Your task to perform on an android device: Open Google Maps and go to "Timeline" Image 0: 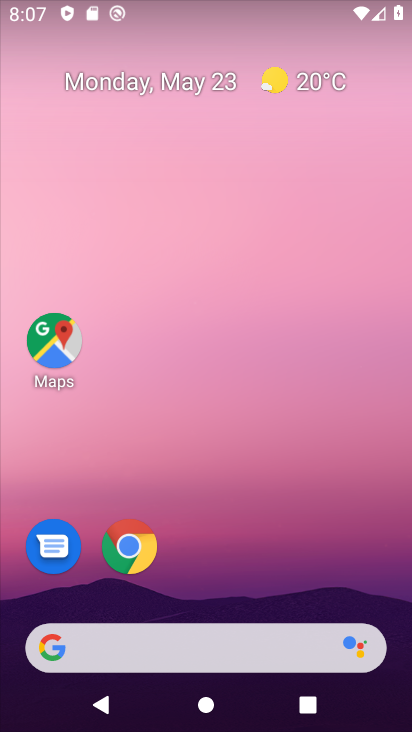
Step 0: drag from (270, 529) to (221, 0)
Your task to perform on an android device: Open Google Maps and go to "Timeline" Image 1: 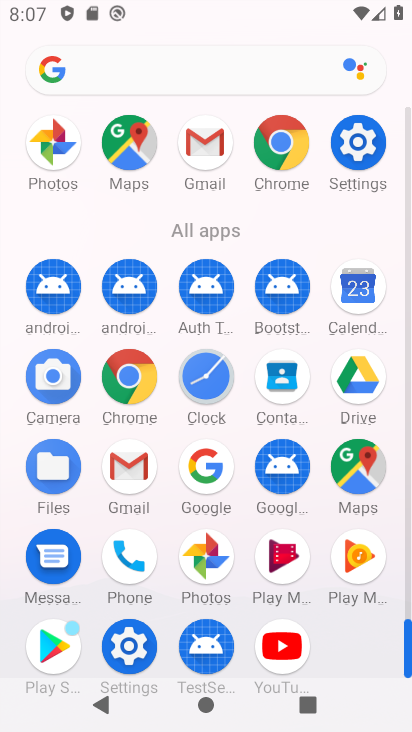
Step 1: drag from (11, 529) to (16, 186)
Your task to perform on an android device: Open Google Maps and go to "Timeline" Image 2: 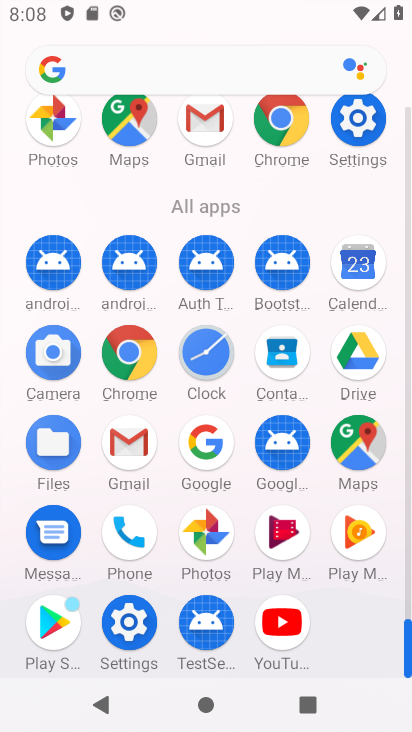
Step 2: click (350, 442)
Your task to perform on an android device: Open Google Maps and go to "Timeline" Image 3: 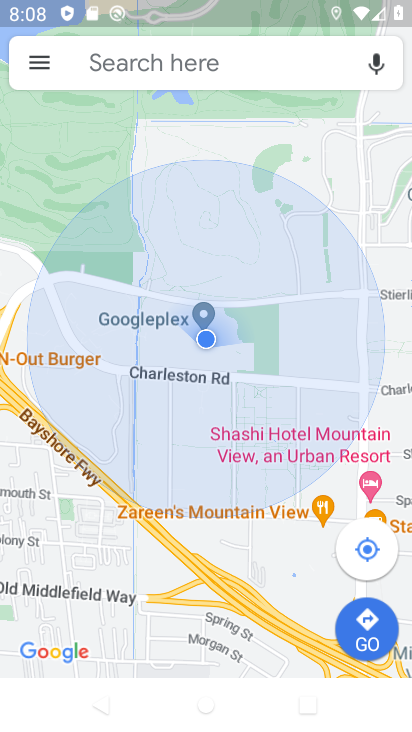
Step 3: click (31, 78)
Your task to perform on an android device: Open Google Maps and go to "Timeline" Image 4: 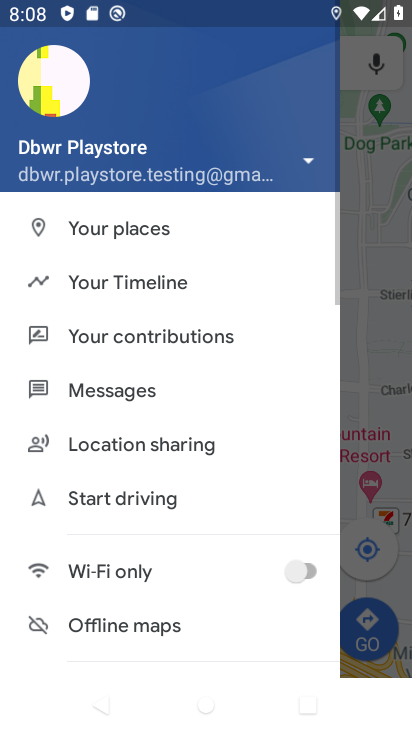
Step 4: click (151, 266)
Your task to perform on an android device: Open Google Maps and go to "Timeline" Image 5: 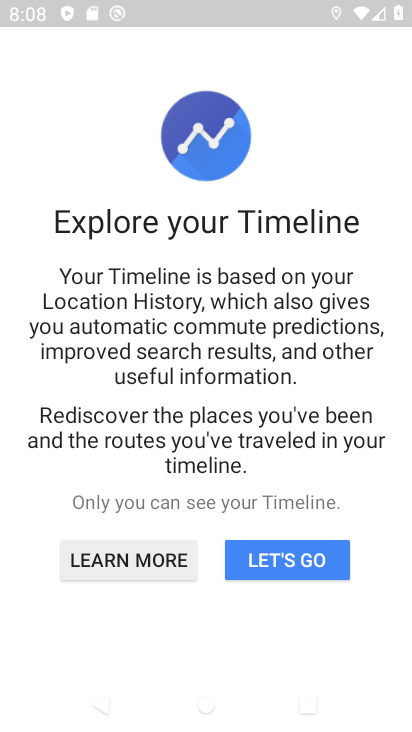
Step 5: click (299, 555)
Your task to perform on an android device: Open Google Maps and go to "Timeline" Image 6: 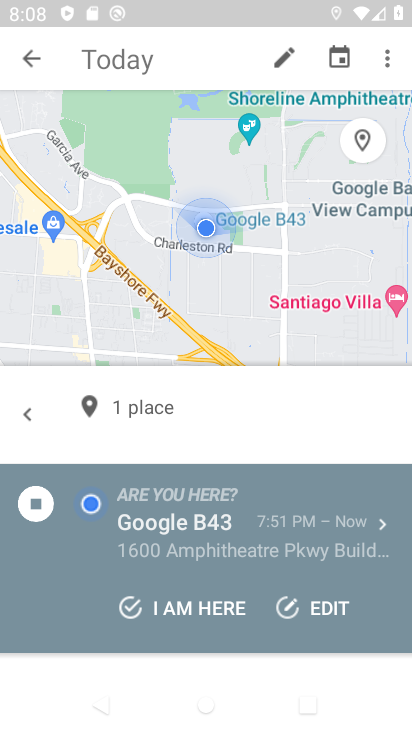
Step 6: task complete